Your task to perform on an android device: change alarm snooze length Image 0: 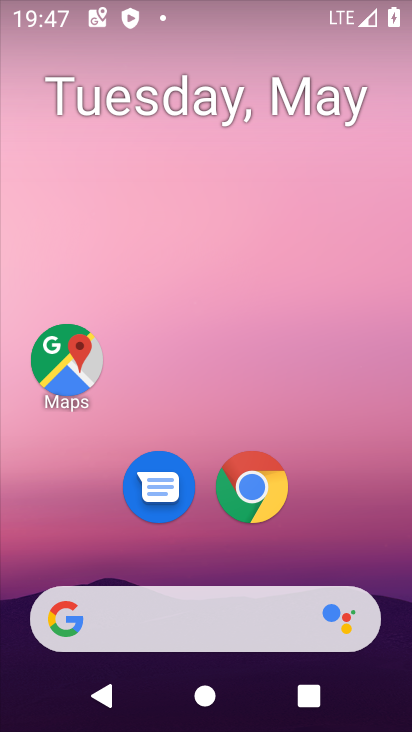
Step 0: drag from (380, 539) to (257, 102)
Your task to perform on an android device: change alarm snooze length Image 1: 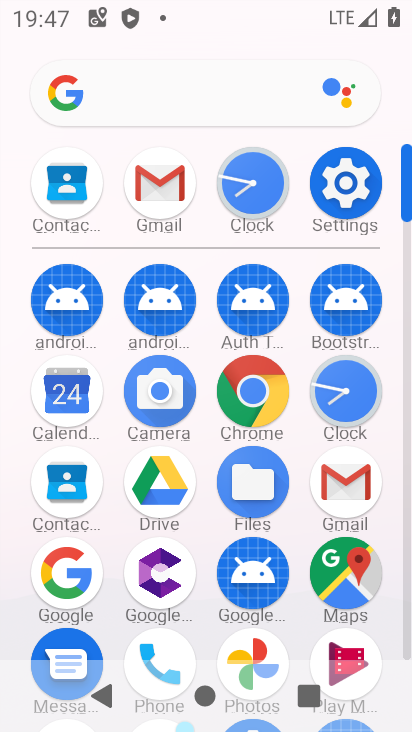
Step 1: click (252, 186)
Your task to perform on an android device: change alarm snooze length Image 2: 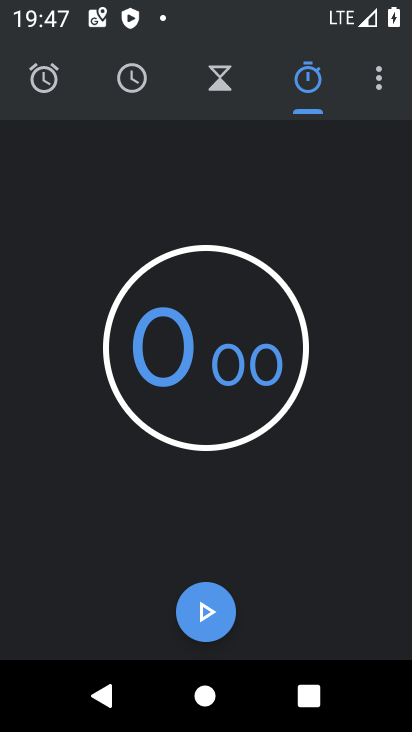
Step 2: click (376, 87)
Your task to perform on an android device: change alarm snooze length Image 3: 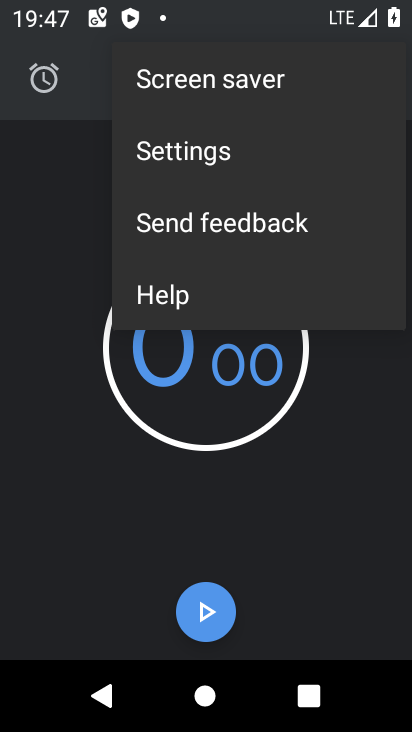
Step 3: click (210, 151)
Your task to perform on an android device: change alarm snooze length Image 4: 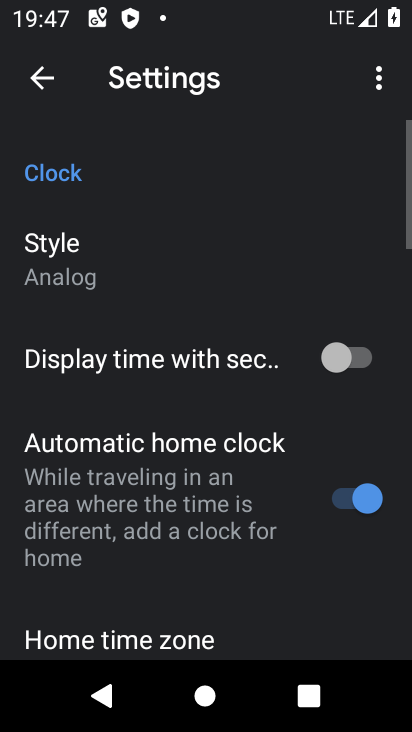
Step 4: drag from (270, 597) to (208, 284)
Your task to perform on an android device: change alarm snooze length Image 5: 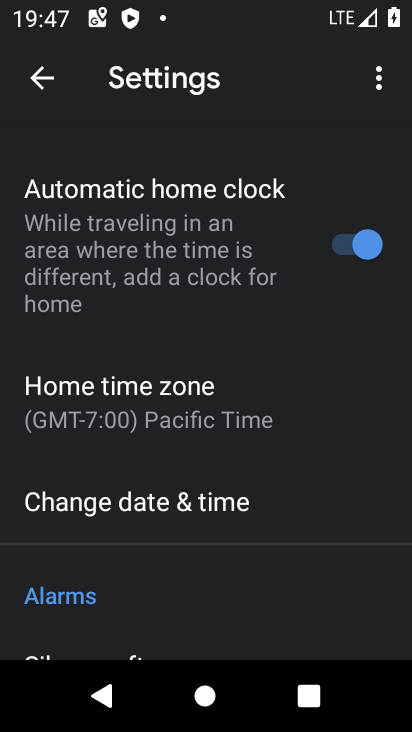
Step 5: drag from (262, 471) to (231, 286)
Your task to perform on an android device: change alarm snooze length Image 6: 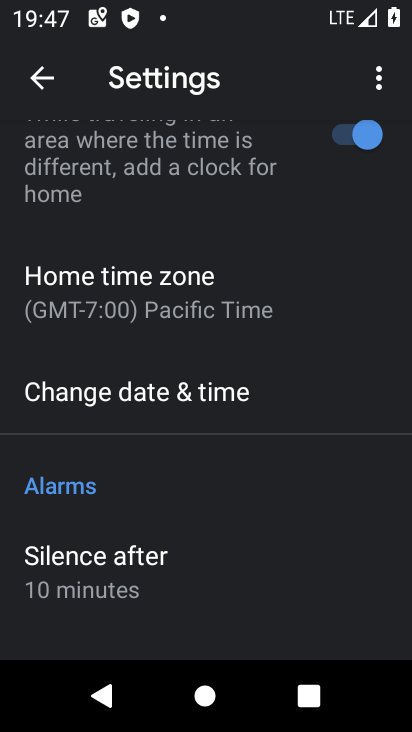
Step 6: drag from (225, 514) to (158, 281)
Your task to perform on an android device: change alarm snooze length Image 7: 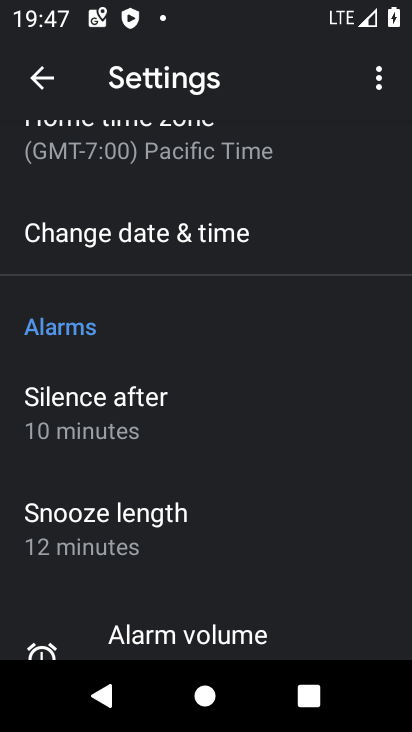
Step 7: click (138, 513)
Your task to perform on an android device: change alarm snooze length Image 8: 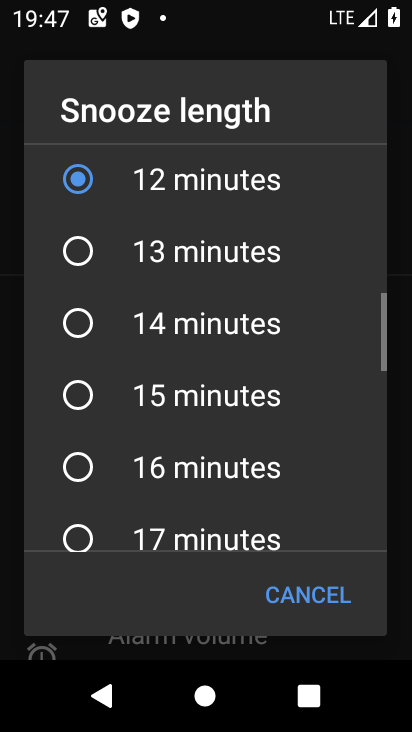
Step 8: click (93, 392)
Your task to perform on an android device: change alarm snooze length Image 9: 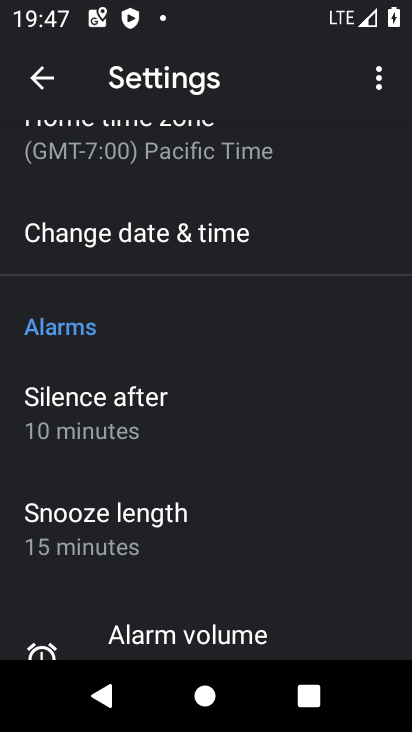
Step 9: task complete